Your task to perform on an android device: change alarm snooze length Image 0: 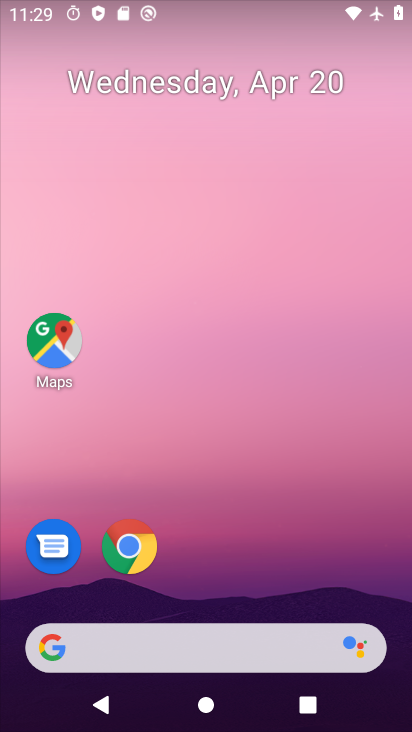
Step 0: drag from (215, 648) to (368, 164)
Your task to perform on an android device: change alarm snooze length Image 1: 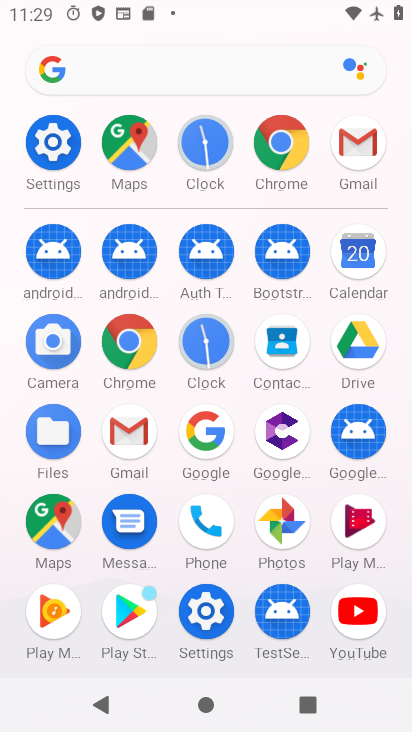
Step 1: click (205, 343)
Your task to perform on an android device: change alarm snooze length Image 2: 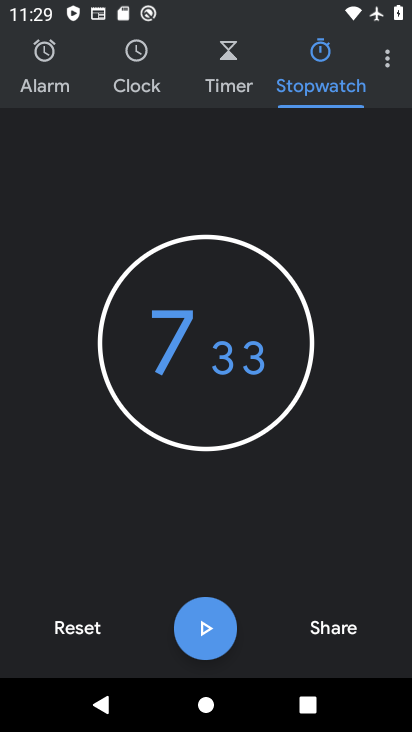
Step 2: click (386, 51)
Your task to perform on an android device: change alarm snooze length Image 3: 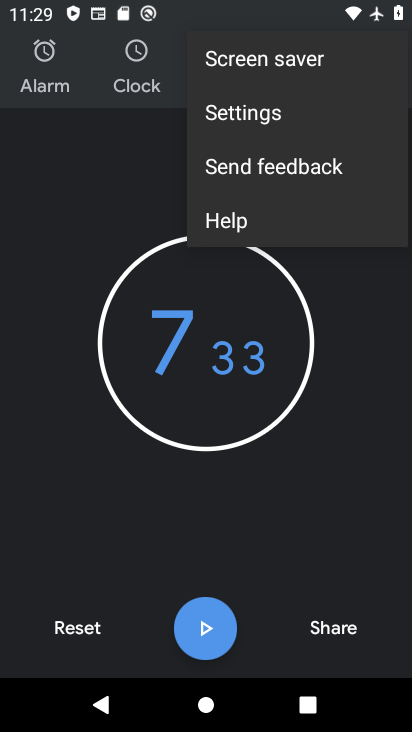
Step 3: click (252, 108)
Your task to perform on an android device: change alarm snooze length Image 4: 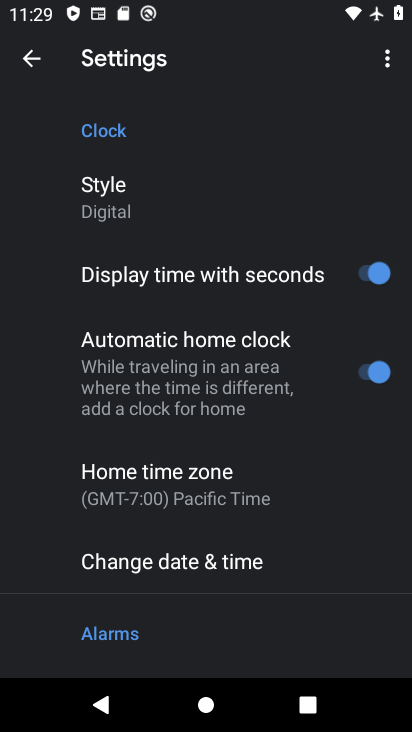
Step 4: drag from (258, 559) to (409, 156)
Your task to perform on an android device: change alarm snooze length Image 5: 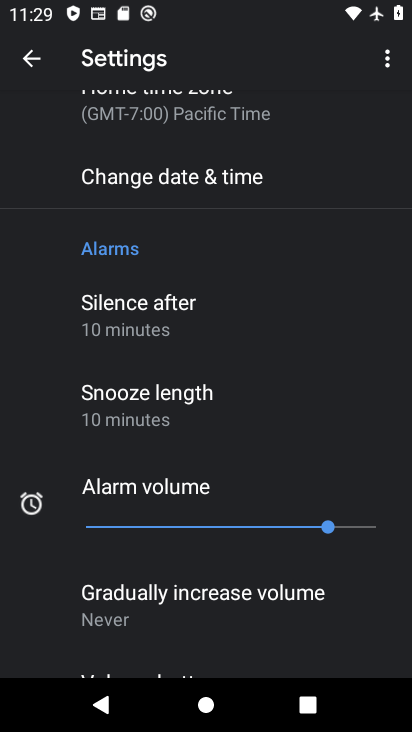
Step 5: click (165, 420)
Your task to perform on an android device: change alarm snooze length Image 6: 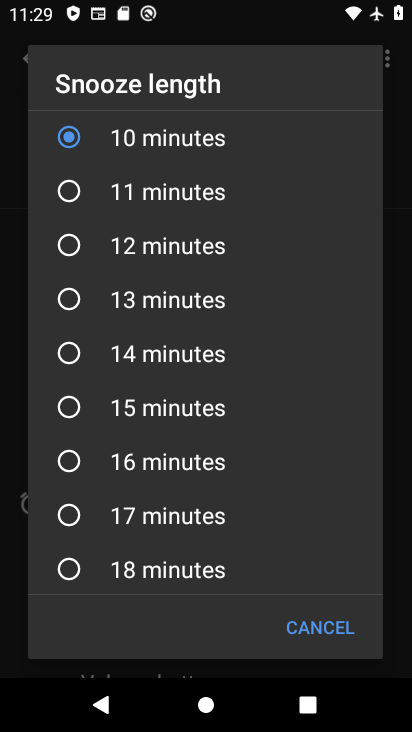
Step 6: click (66, 352)
Your task to perform on an android device: change alarm snooze length Image 7: 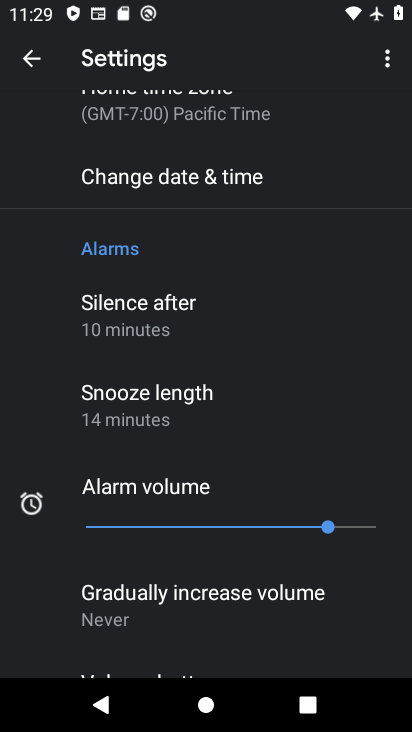
Step 7: task complete